Your task to perform on an android device: change notification settings in the gmail app Image 0: 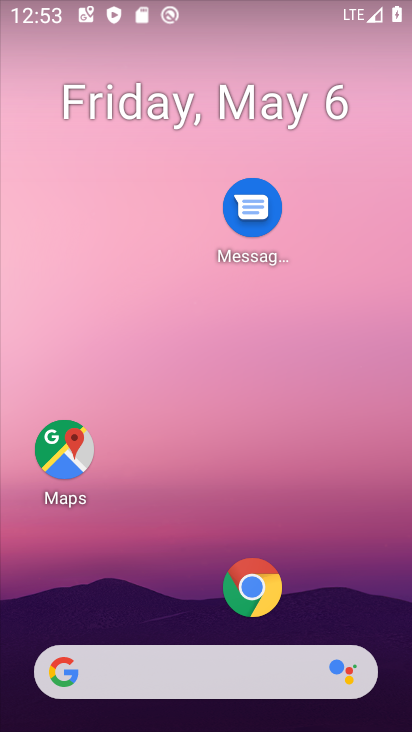
Step 0: drag from (191, 604) to (253, 6)
Your task to perform on an android device: change notification settings in the gmail app Image 1: 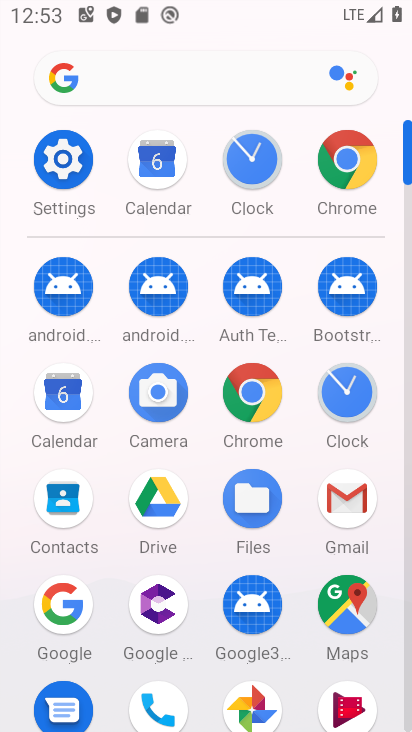
Step 1: click (333, 498)
Your task to perform on an android device: change notification settings in the gmail app Image 2: 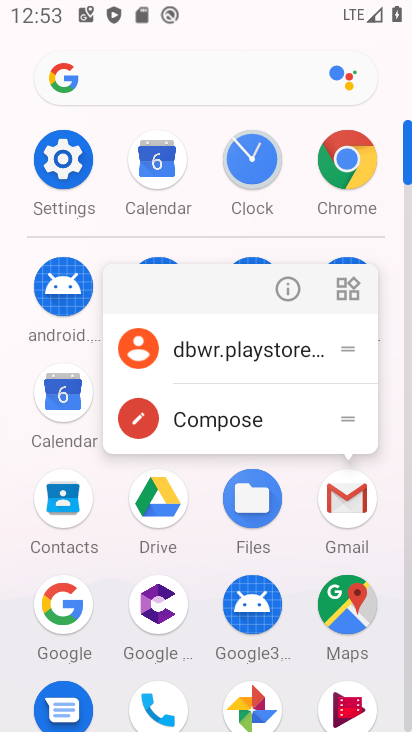
Step 2: click (288, 284)
Your task to perform on an android device: change notification settings in the gmail app Image 3: 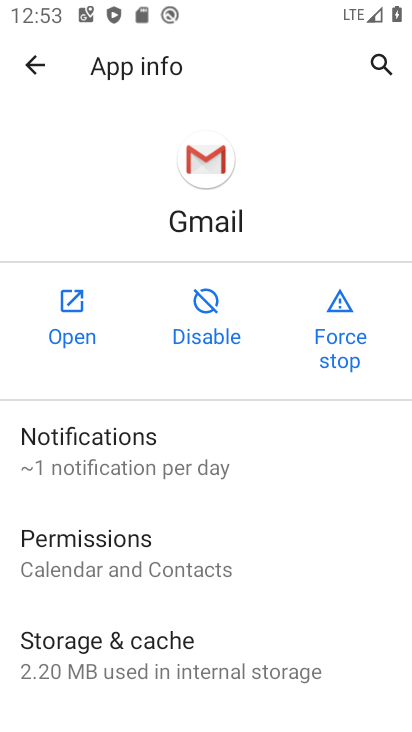
Step 3: click (116, 453)
Your task to perform on an android device: change notification settings in the gmail app Image 4: 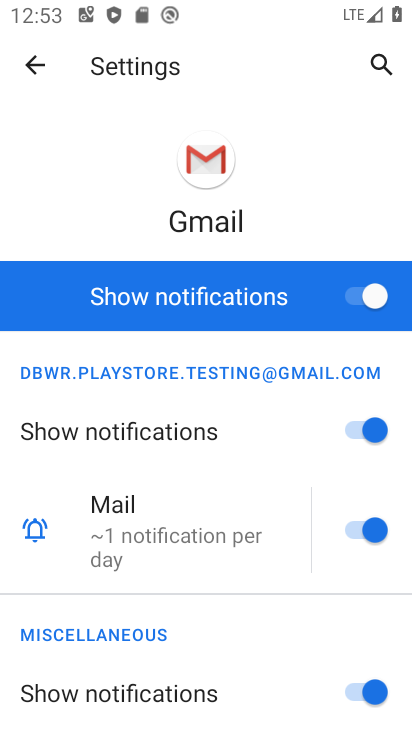
Step 4: drag from (176, 598) to (217, 493)
Your task to perform on an android device: change notification settings in the gmail app Image 5: 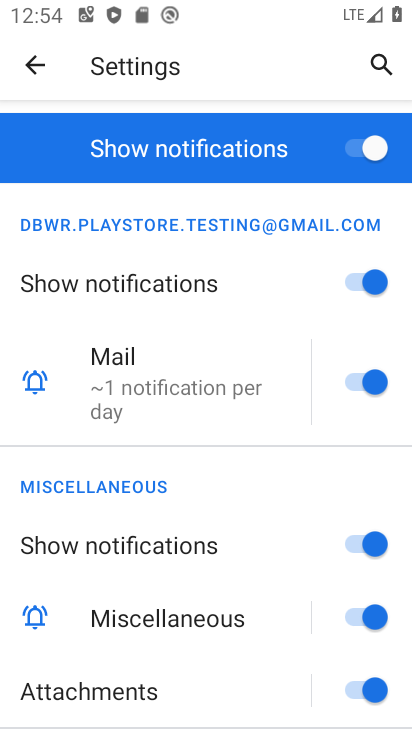
Step 5: click (361, 543)
Your task to perform on an android device: change notification settings in the gmail app Image 6: 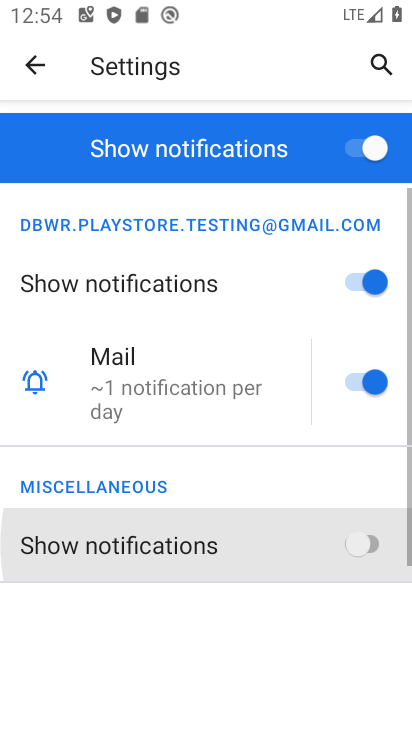
Step 6: task complete